Your task to perform on an android device: Show me popular videos on Youtube Image 0: 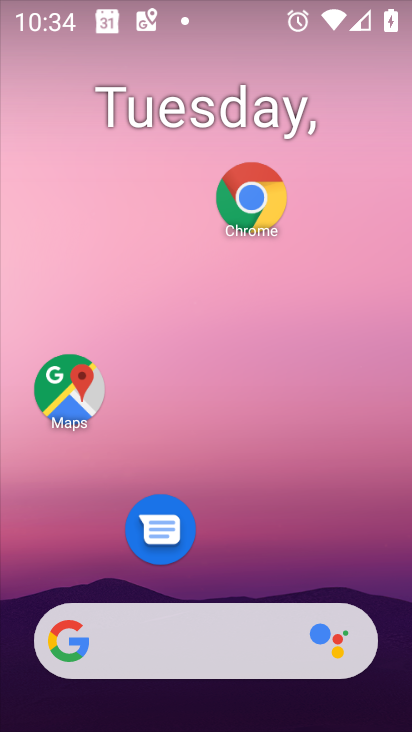
Step 0: drag from (335, 557) to (333, 40)
Your task to perform on an android device: Show me popular videos on Youtube Image 1: 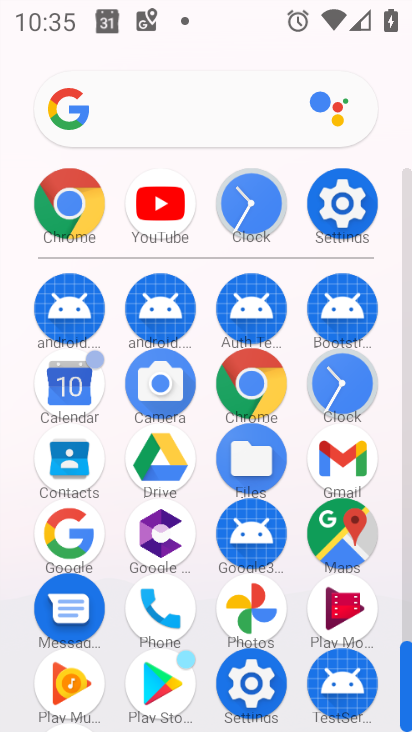
Step 1: click (179, 229)
Your task to perform on an android device: Show me popular videos on Youtube Image 2: 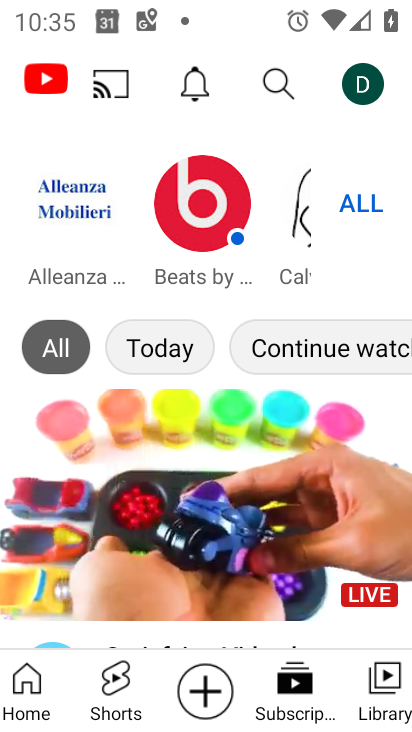
Step 2: task complete